Your task to perform on an android device: Clear the cart on costco. Add logitech g910 to the cart on costco Image 0: 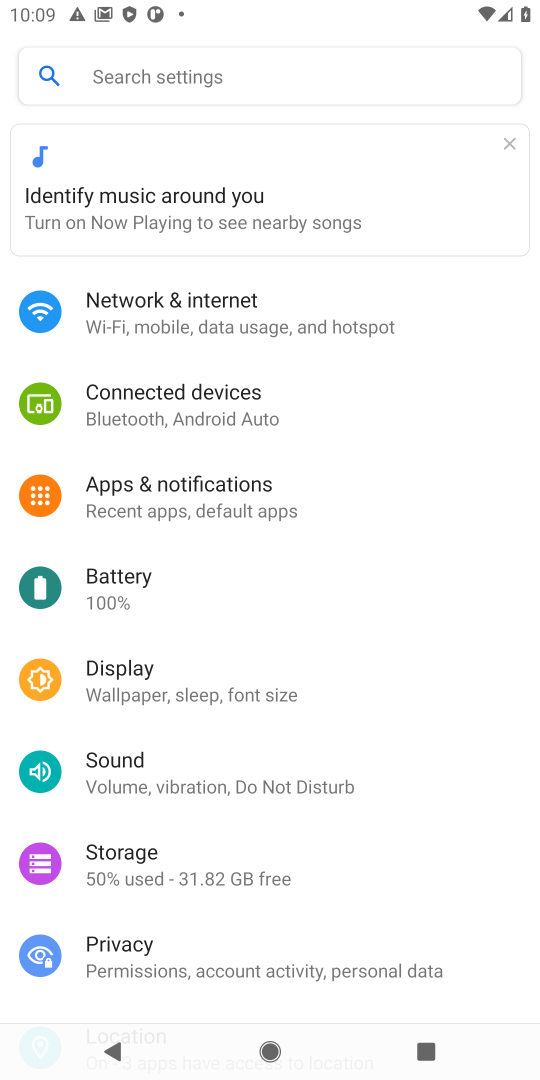
Step 0: press home button
Your task to perform on an android device: Clear the cart on costco. Add logitech g910 to the cart on costco Image 1: 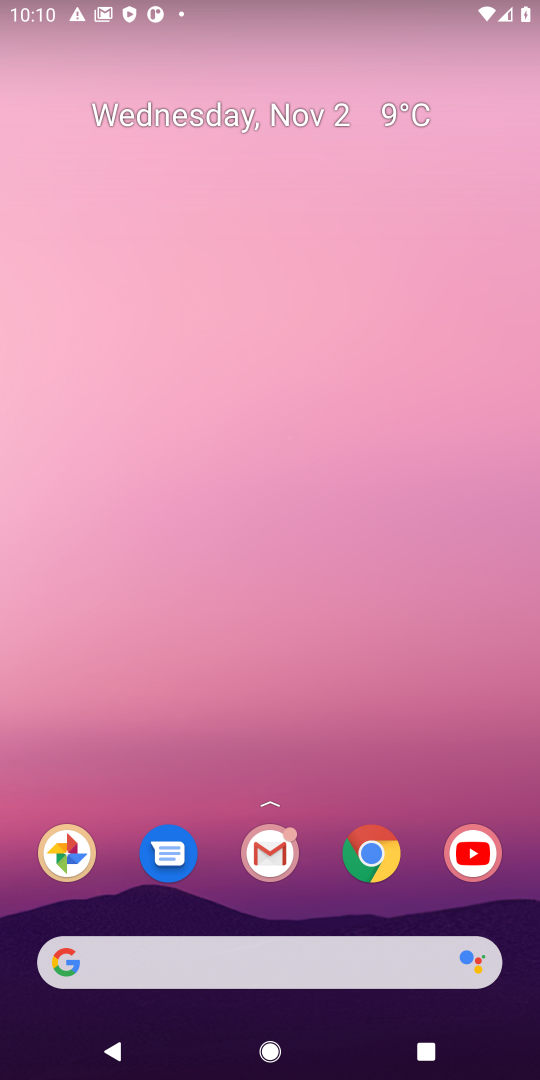
Step 1: click (370, 850)
Your task to perform on an android device: Clear the cart on costco. Add logitech g910 to the cart on costco Image 2: 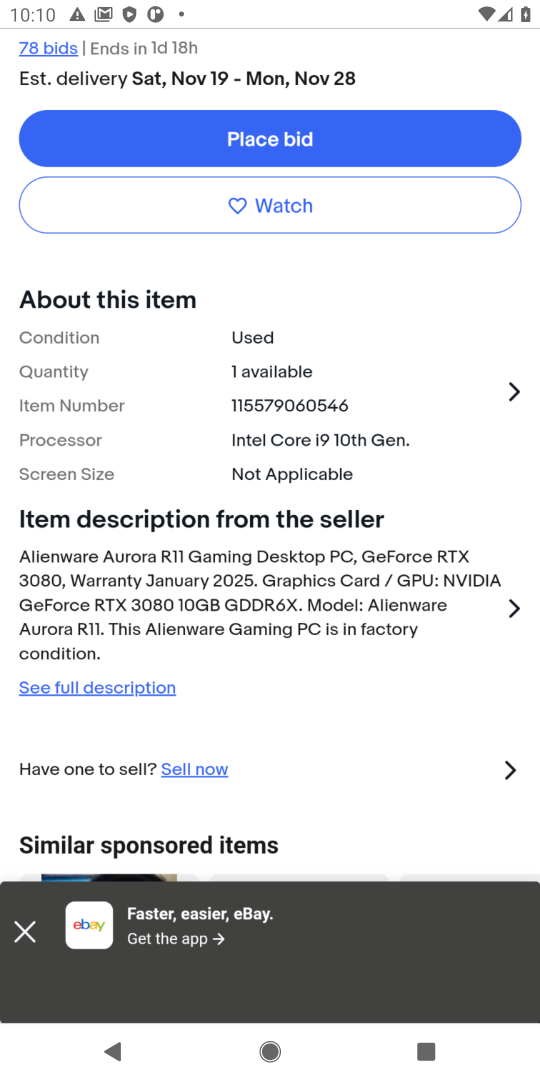
Step 2: click (370, 850)
Your task to perform on an android device: Clear the cart on costco. Add logitech g910 to the cart on costco Image 3: 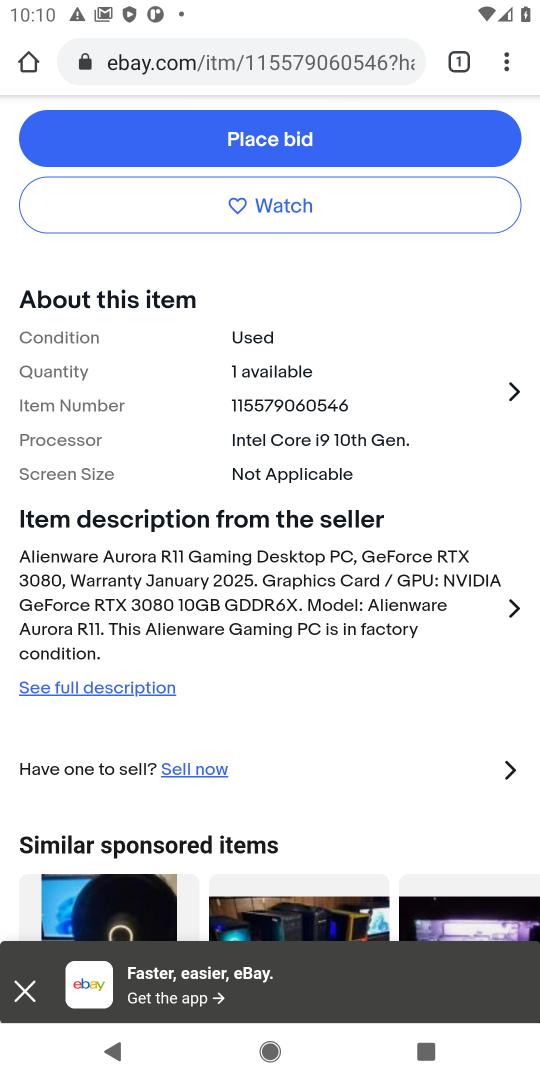
Step 3: click (289, 56)
Your task to perform on an android device: Clear the cart on costco. Add logitech g910 to the cart on costco Image 4: 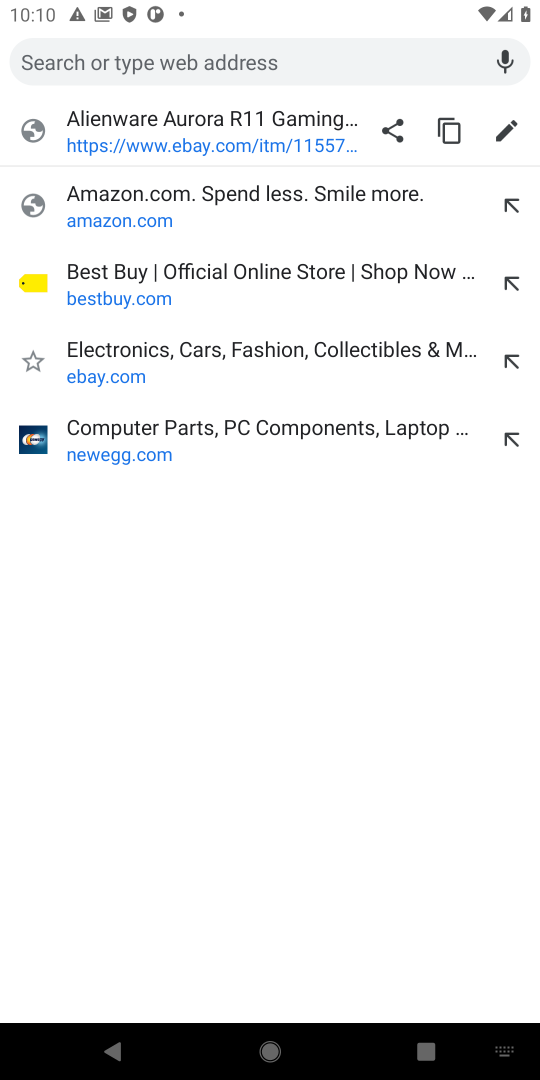
Step 4: type "costco"
Your task to perform on an android device: Clear the cart on costco. Add logitech g910 to the cart on costco Image 5: 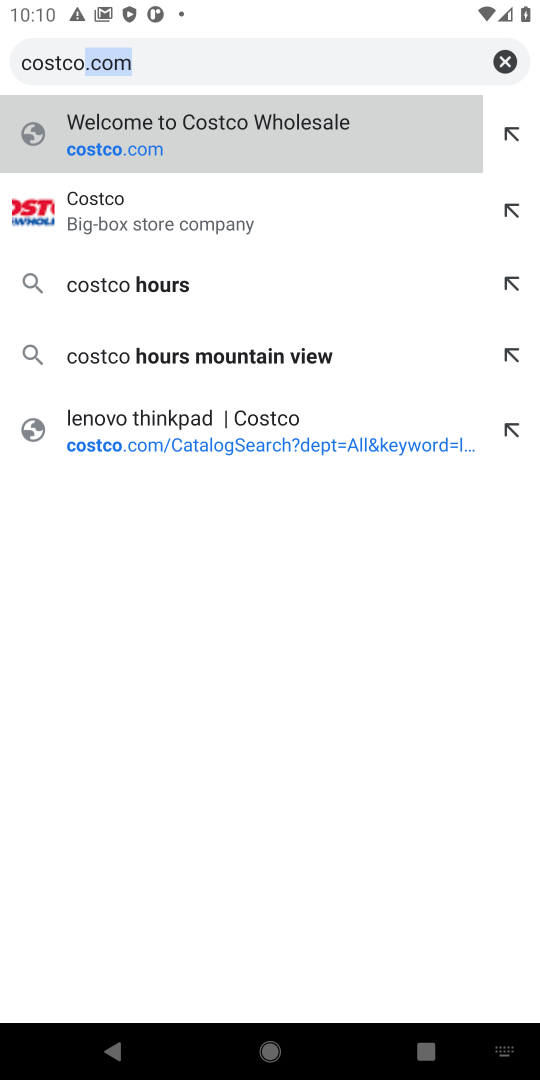
Step 5: press enter
Your task to perform on an android device: Clear the cart on costco. Add logitech g910 to the cart on costco Image 6: 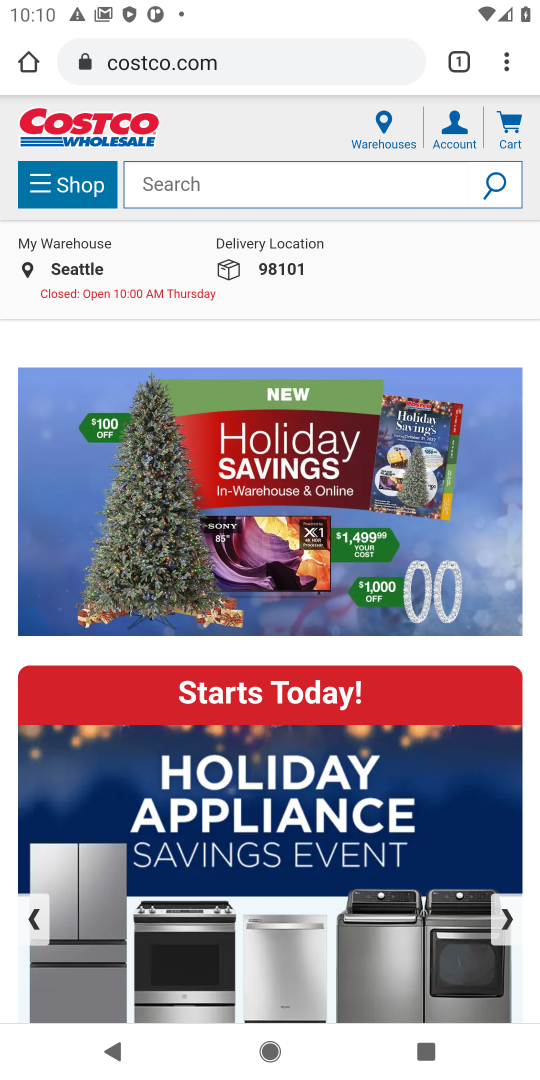
Step 6: click (196, 182)
Your task to perform on an android device: Clear the cart on costco. Add logitech g910 to the cart on costco Image 7: 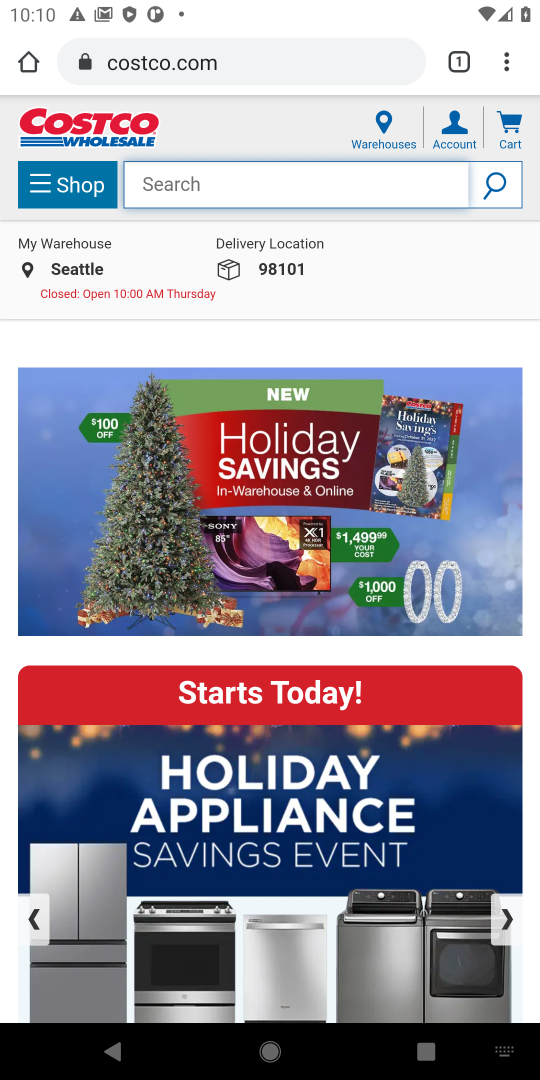
Step 7: type "logitech g910"
Your task to perform on an android device: Clear the cart on costco. Add logitech g910 to the cart on costco Image 8: 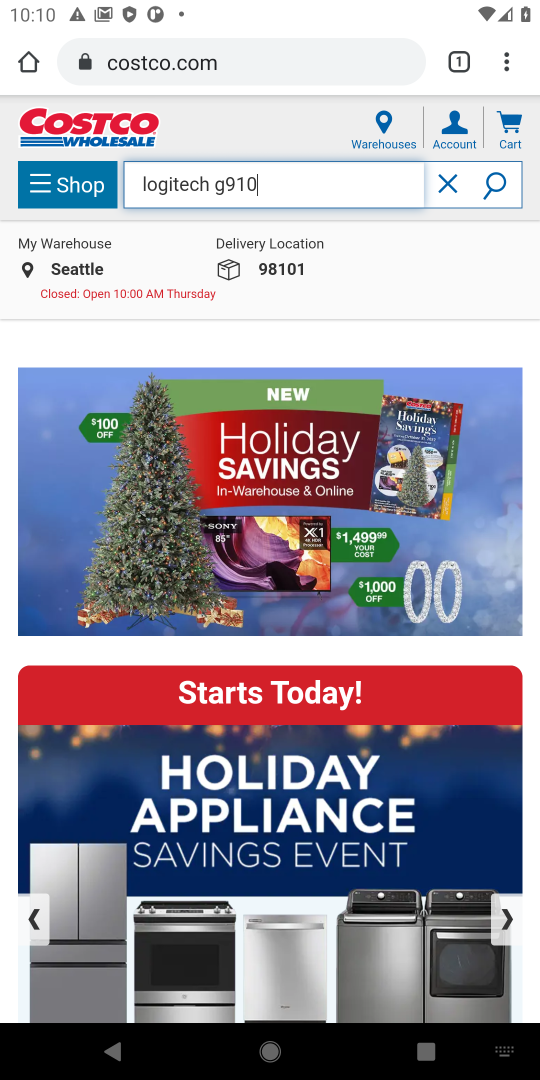
Step 8: press enter
Your task to perform on an android device: Clear the cart on costco. Add logitech g910 to the cart on costco Image 9: 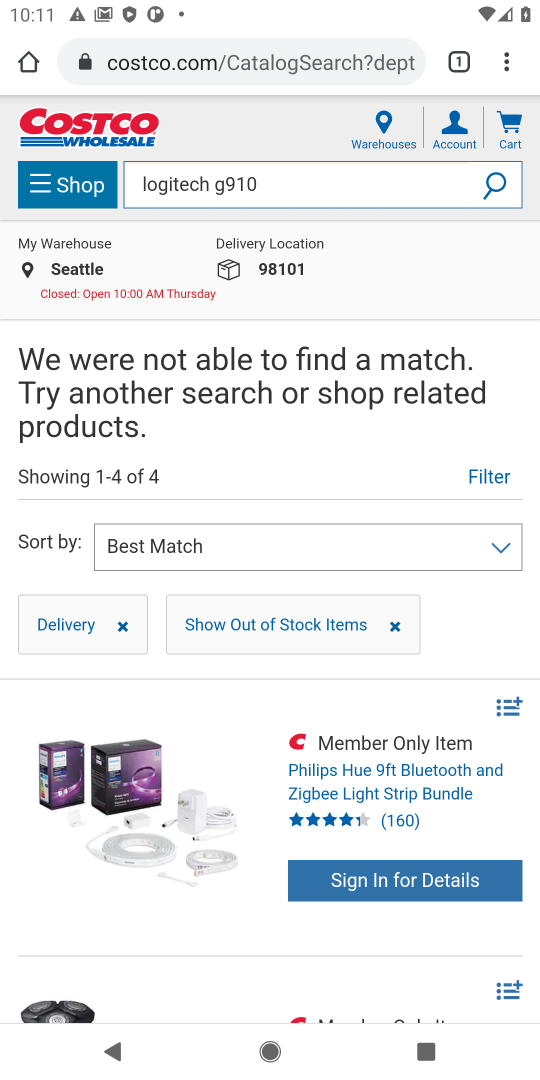
Step 9: task complete